Your task to perform on an android device: Do I have any events this weekend? Image 0: 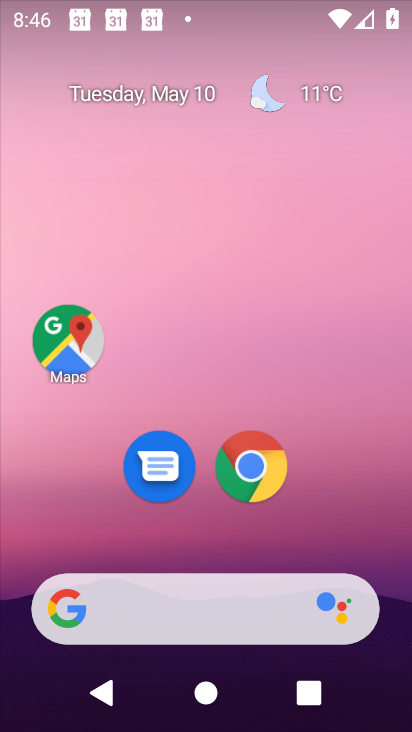
Step 0: drag from (200, 542) to (276, 2)
Your task to perform on an android device: Do I have any events this weekend? Image 1: 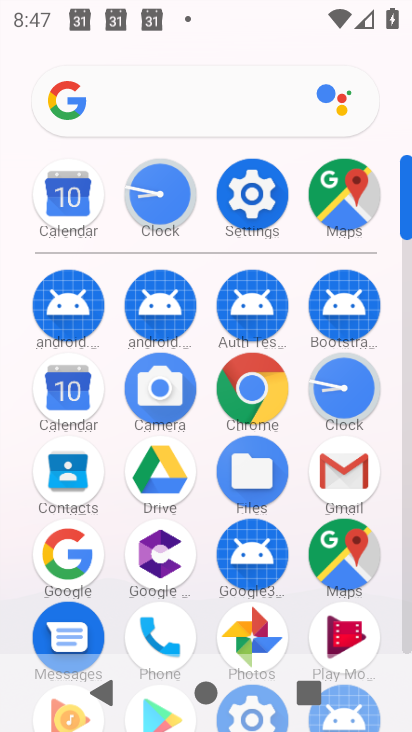
Step 1: click (69, 404)
Your task to perform on an android device: Do I have any events this weekend? Image 2: 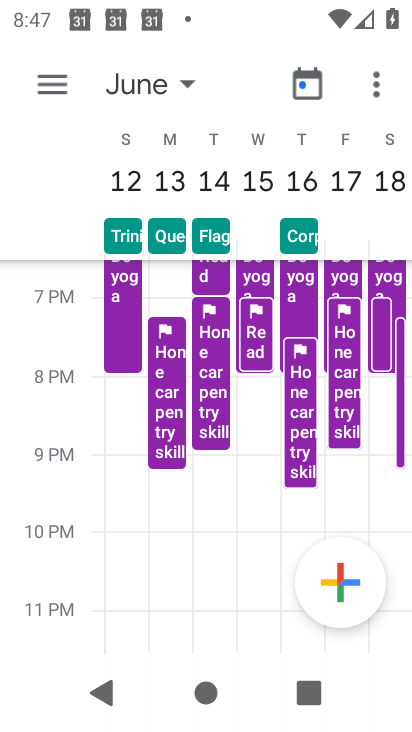
Step 2: click (139, 81)
Your task to perform on an android device: Do I have any events this weekend? Image 3: 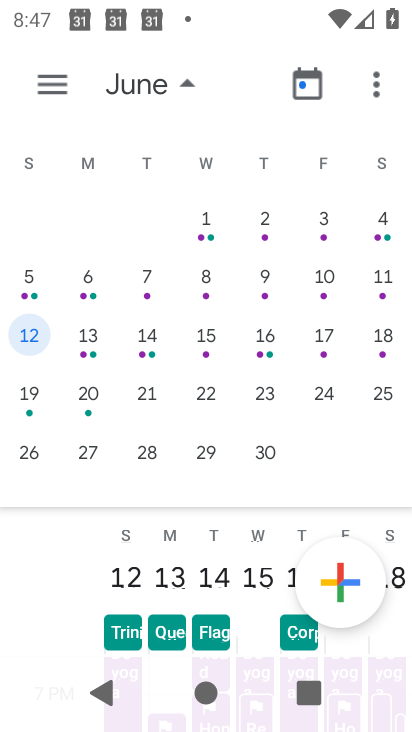
Step 3: drag from (49, 288) to (410, 283)
Your task to perform on an android device: Do I have any events this weekend? Image 4: 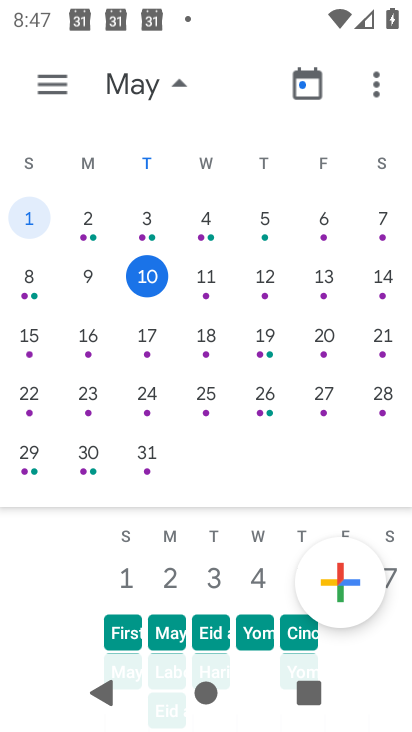
Step 4: click (44, 86)
Your task to perform on an android device: Do I have any events this weekend? Image 5: 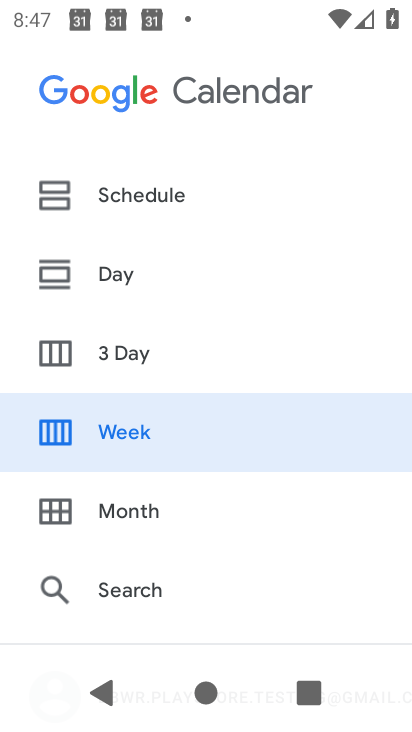
Step 5: drag from (109, 562) to (199, 135)
Your task to perform on an android device: Do I have any events this weekend? Image 6: 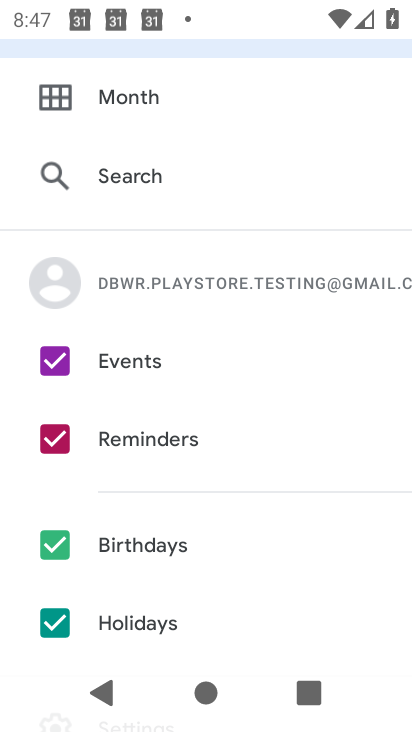
Step 6: click (123, 439)
Your task to perform on an android device: Do I have any events this weekend? Image 7: 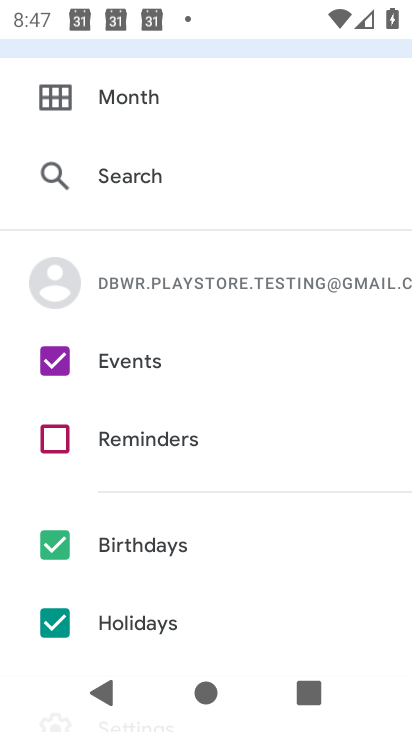
Step 7: click (134, 549)
Your task to perform on an android device: Do I have any events this weekend? Image 8: 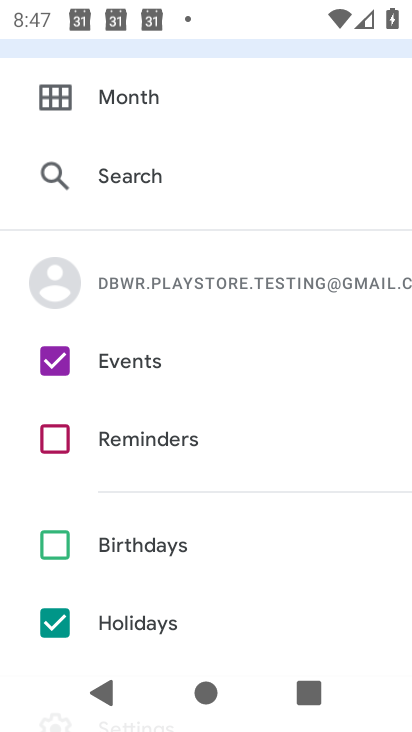
Step 8: click (104, 626)
Your task to perform on an android device: Do I have any events this weekend? Image 9: 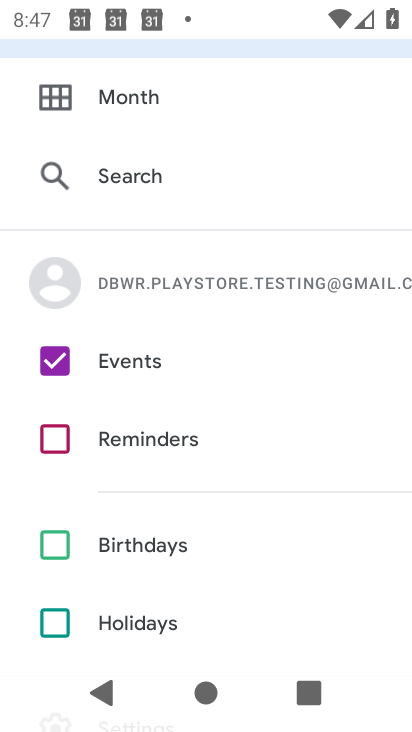
Step 9: drag from (203, 289) to (218, 609)
Your task to perform on an android device: Do I have any events this weekend? Image 10: 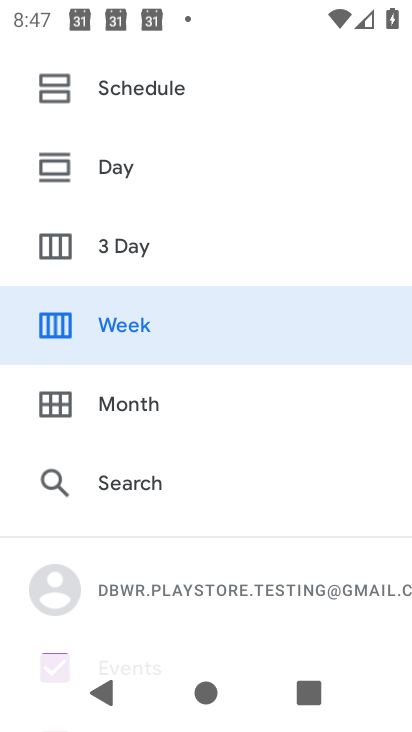
Step 10: click (143, 346)
Your task to perform on an android device: Do I have any events this weekend? Image 11: 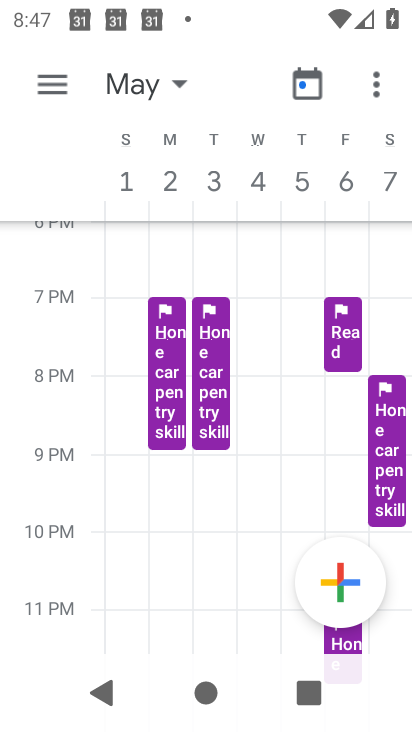
Step 11: task complete